Your task to perform on an android device: Is it going to rain today? Image 0: 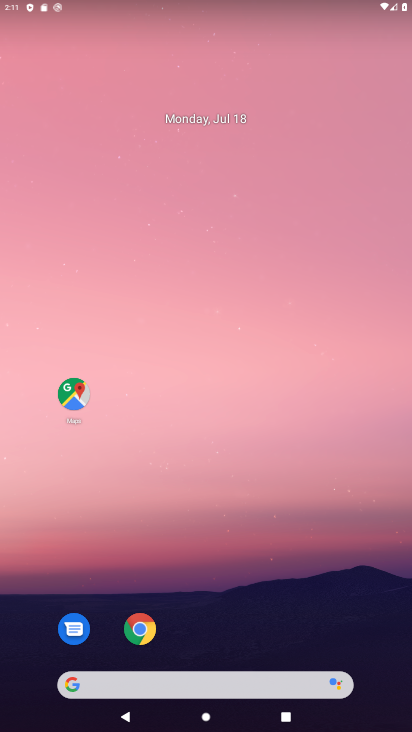
Step 0: drag from (217, 634) to (221, 271)
Your task to perform on an android device: Is it going to rain today? Image 1: 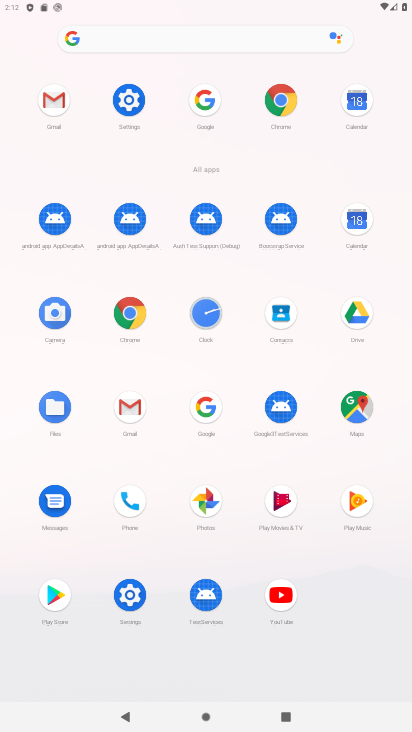
Step 1: click (202, 393)
Your task to perform on an android device: Is it going to rain today? Image 2: 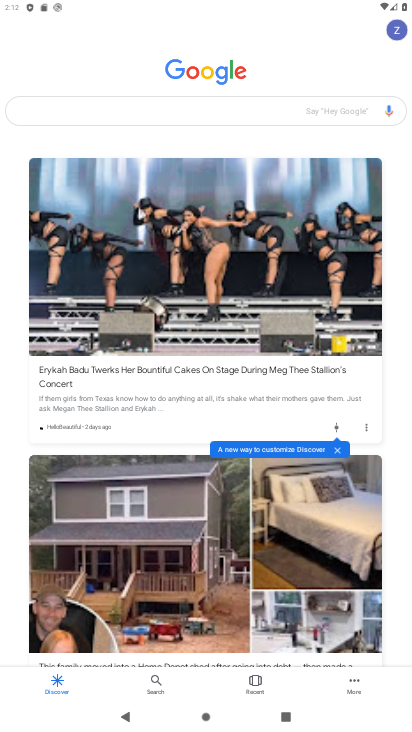
Step 2: click (86, 109)
Your task to perform on an android device: Is it going to rain today? Image 3: 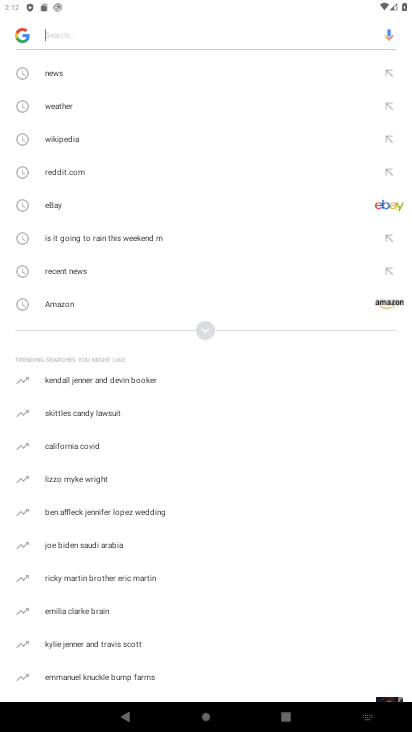
Step 3: click (75, 105)
Your task to perform on an android device: Is it going to rain today? Image 4: 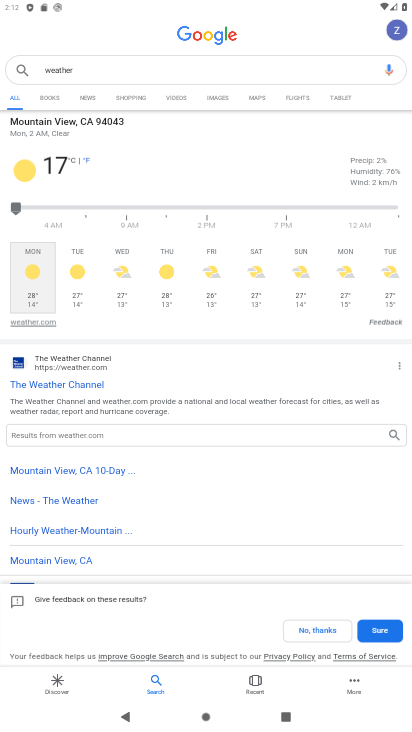
Step 4: task complete